Your task to perform on an android device: change notification settings in the gmail app Image 0: 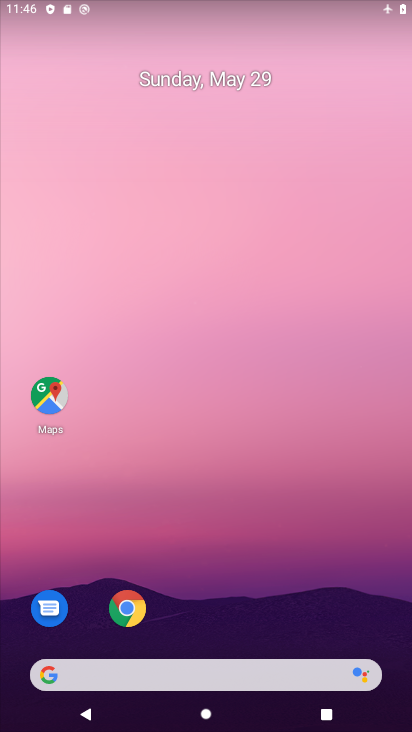
Step 0: drag from (216, 640) to (167, 78)
Your task to perform on an android device: change notification settings in the gmail app Image 1: 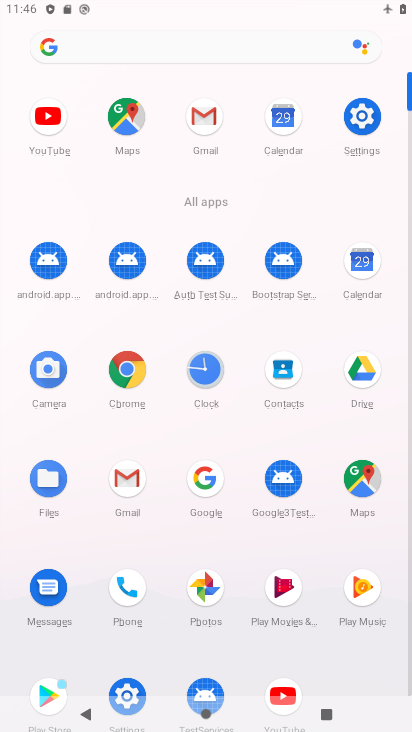
Step 1: click (116, 473)
Your task to perform on an android device: change notification settings in the gmail app Image 2: 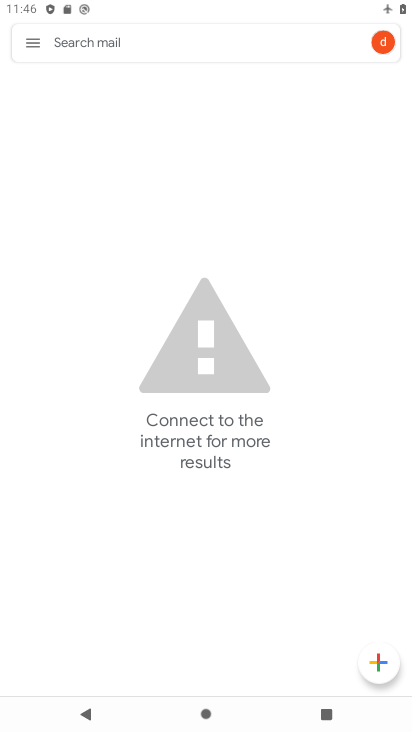
Step 2: click (23, 41)
Your task to perform on an android device: change notification settings in the gmail app Image 3: 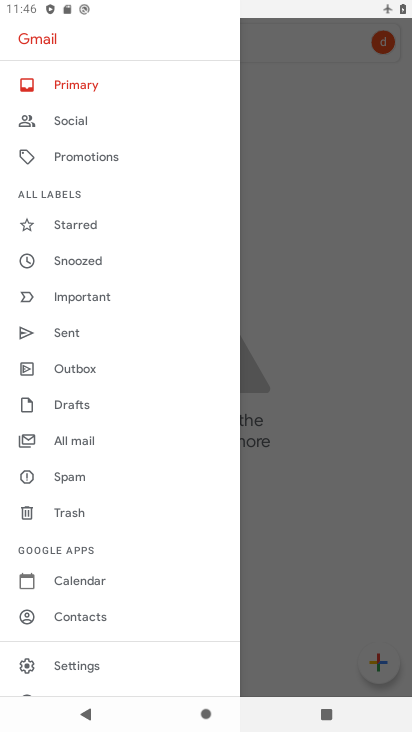
Step 3: click (71, 657)
Your task to perform on an android device: change notification settings in the gmail app Image 4: 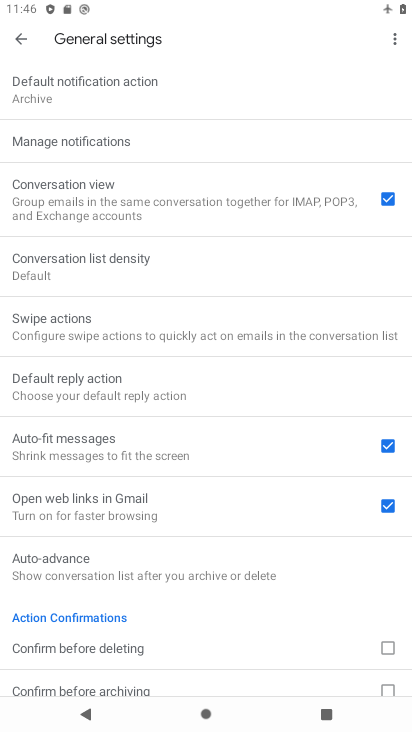
Step 4: click (74, 147)
Your task to perform on an android device: change notification settings in the gmail app Image 5: 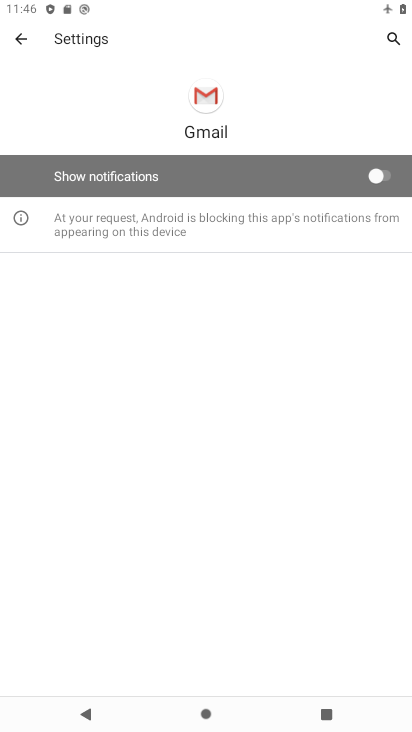
Step 5: click (355, 165)
Your task to perform on an android device: change notification settings in the gmail app Image 6: 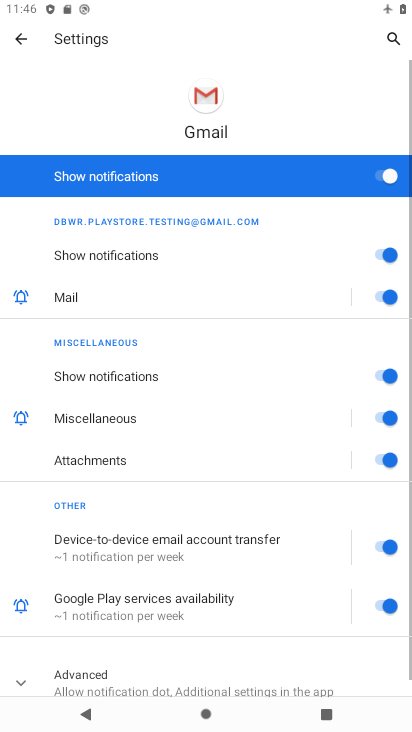
Step 6: task complete